Your task to perform on an android device: Go to CNN.com Image 0: 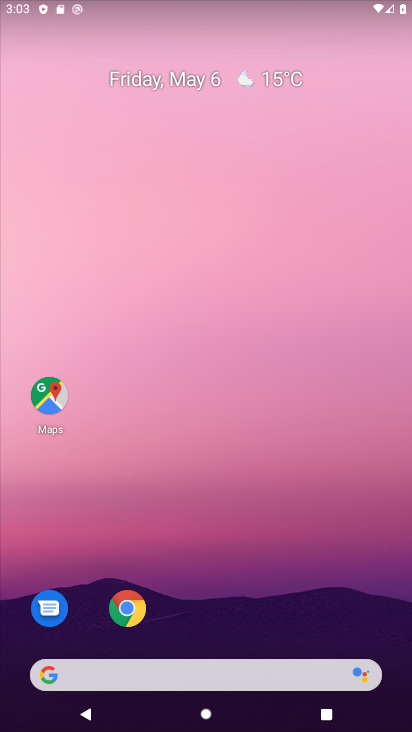
Step 0: click (127, 609)
Your task to perform on an android device: Go to CNN.com Image 1: 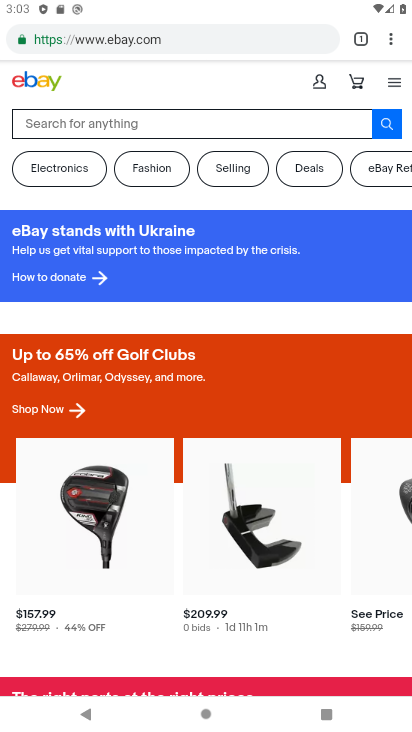
Step 1: press back button
Your task to perform on an android device: Go to CNN.com Image 2: 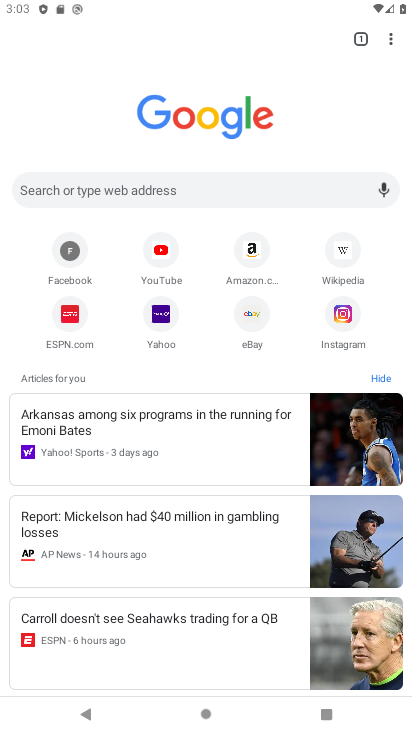
Step 2: click (148, 191)
Your task to perform on an android device: Go to CNN.com Image 3: 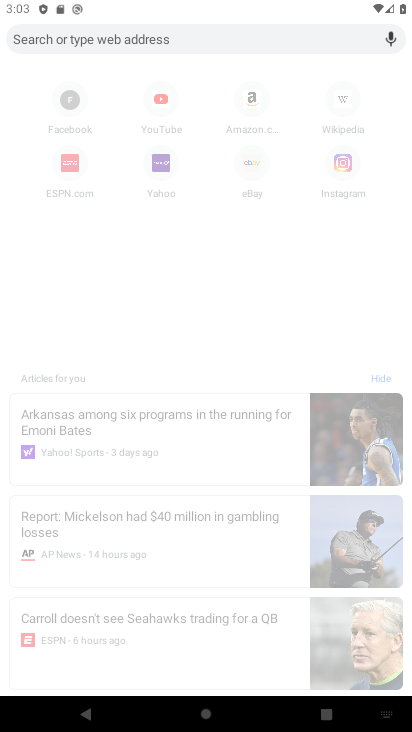
Step 3: type "CNN.com"
Your task to perform on an android device: Go to CNN.com Image 4: 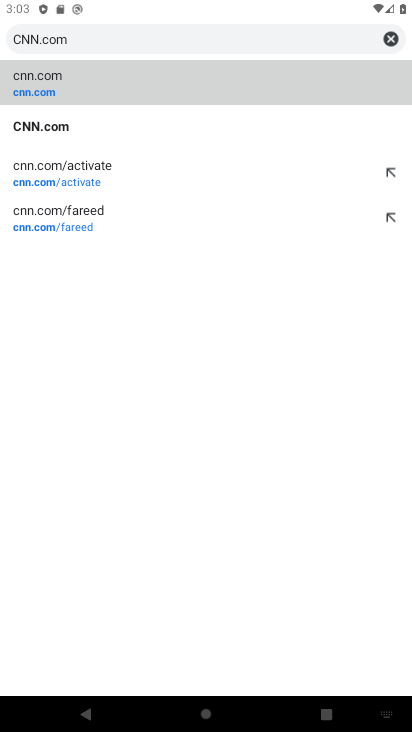
Step 4: click (92, 132)
Your task to perform on an android device: Go to CNN.com Image 5: 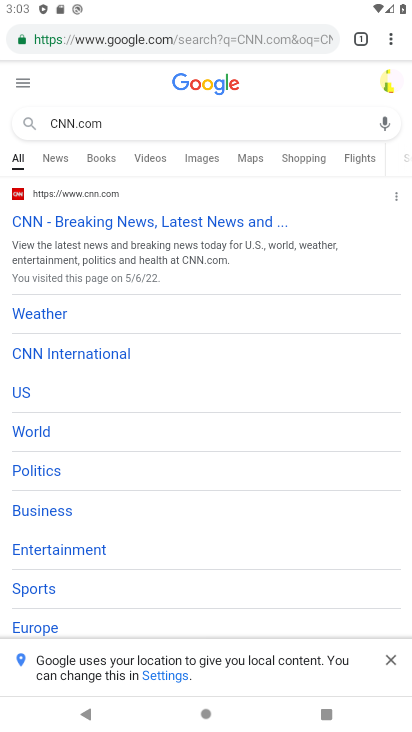
Step 5: click (105, 226)
Your task to perform on an android device: Go to CNN.com Image 6: 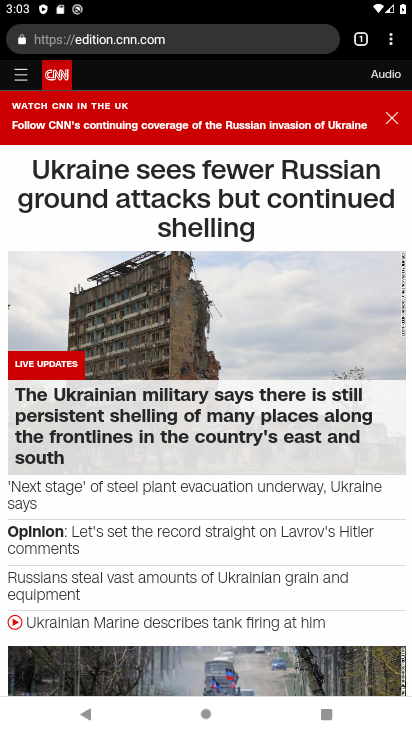
Step 6: task complete